Your task to perform on an android device: move a message to another label in the gmail app Image 0: 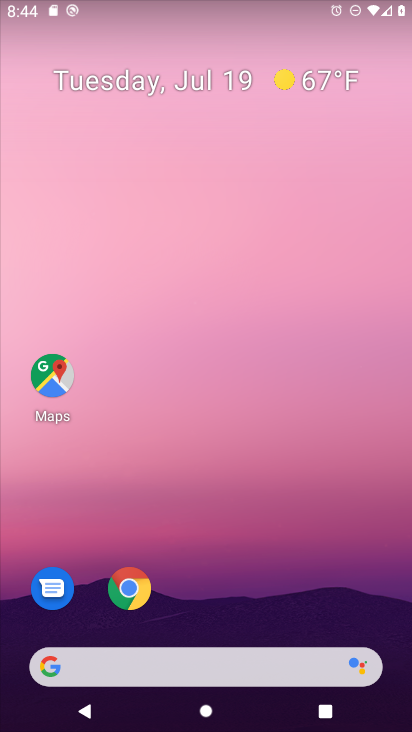
Step 0: drag from (359, 606) to (360, 125)
Your task to perform on an android device: move a message to another label in the gmail app Image 1: 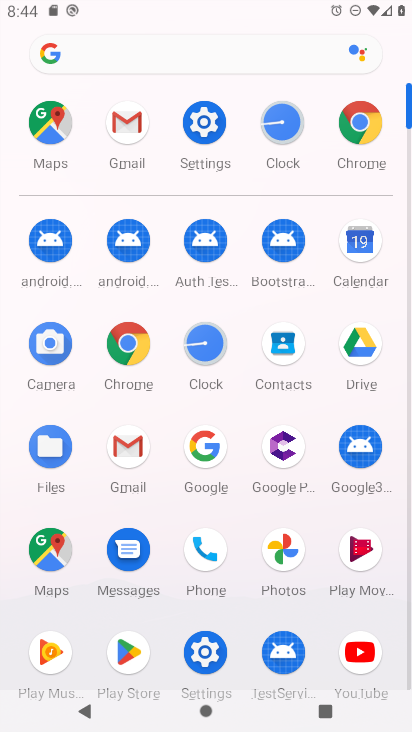
Step 1: click (134, 446)
Your task to perform on an android device: move a message to another label in the gmail app Image 2: 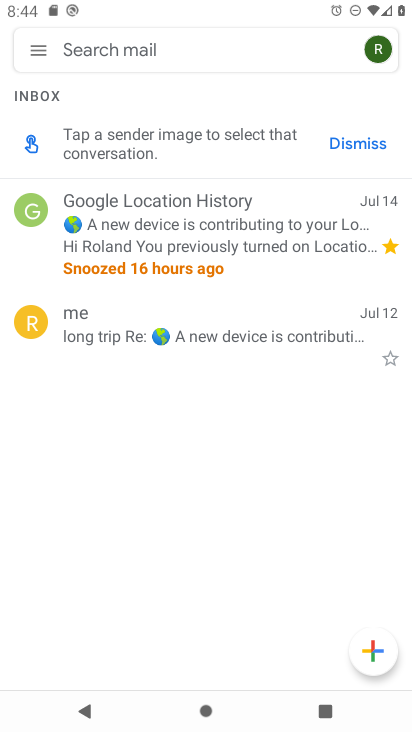
Step 2: click (223, 329)
Your task to perform on an android device: move a message to another label in the gmail app Image 3: 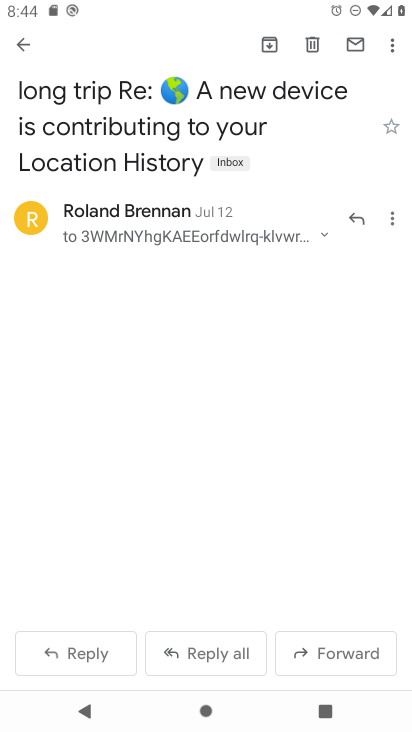
Step 3: click (392, 44)
Your task to perform on an android device: move a message to another label in the gmail app Image 4: 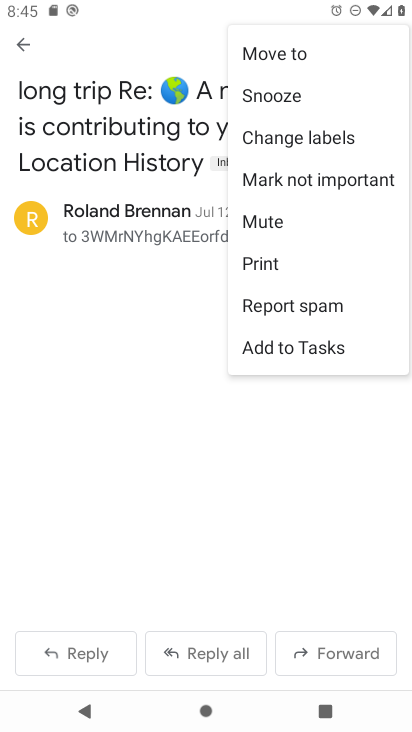
Step 4: click (308, 48)
Your task to perform on an android device: move a message to another label in the gmail app Image 5: 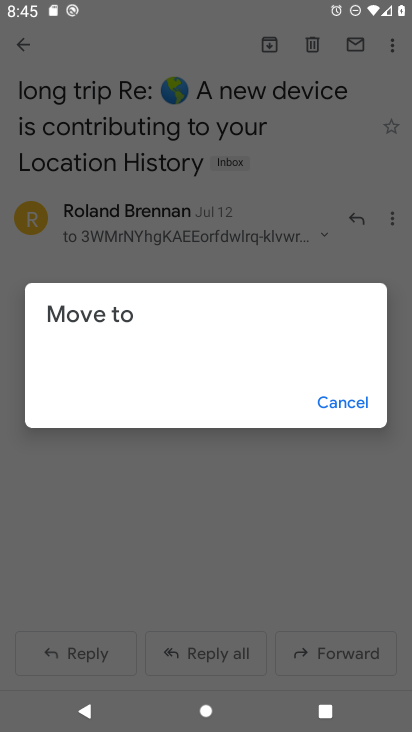
Step 5: click (337, 397)
Your task to perform on an android device: move a message to another label in the gmail app Image 6: 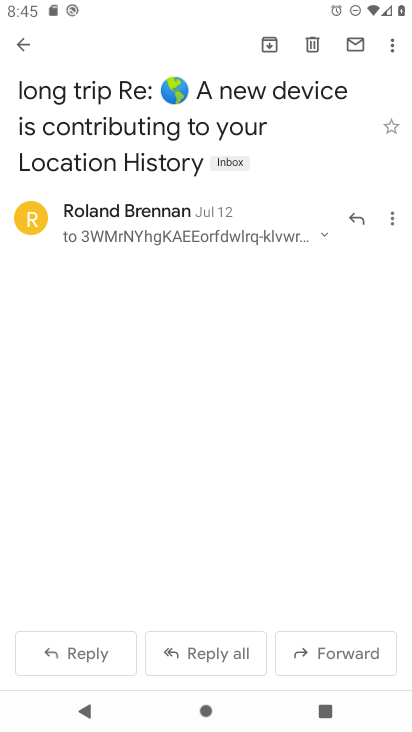
Step 6: click (393, 46)
Your task to perform on an android device: move a message to another label in the gmail app Image 7: 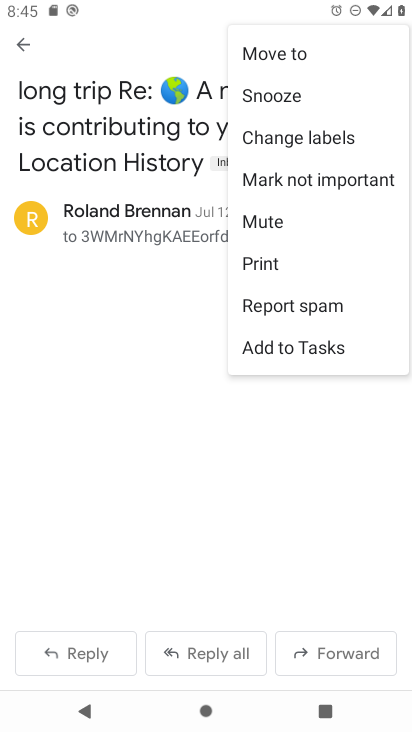
Step 7: click (312, 48)
Your task to perform on an android device: move a message to another label in the gmail app Image 8: 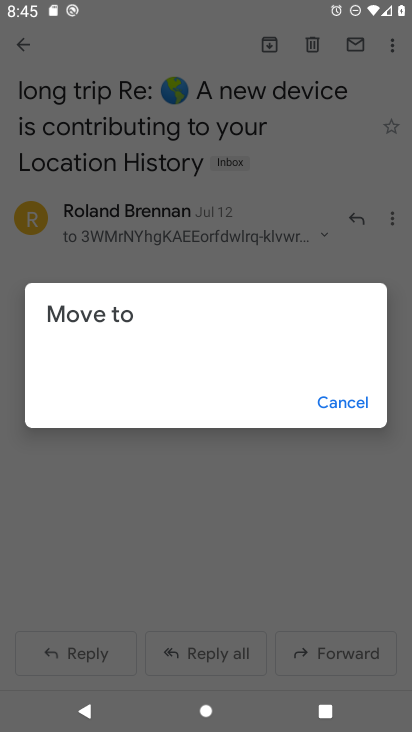
Step 8: task complete